Your task to perform on an android device: open device folders in google photos Image 0: 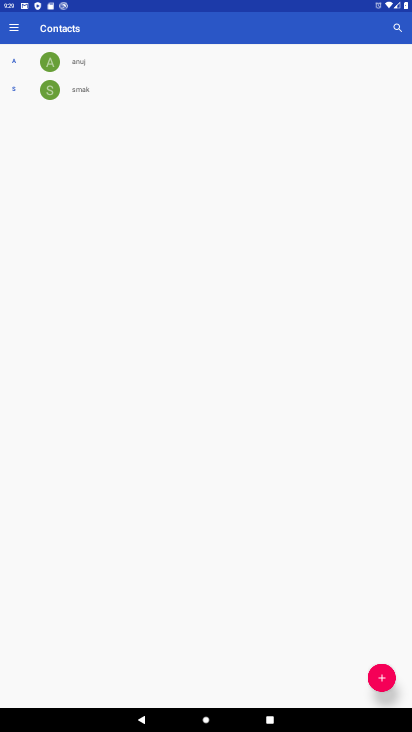
Step 0: press home button
Your task to perform on an android device: open device folders in google photos Image 1: 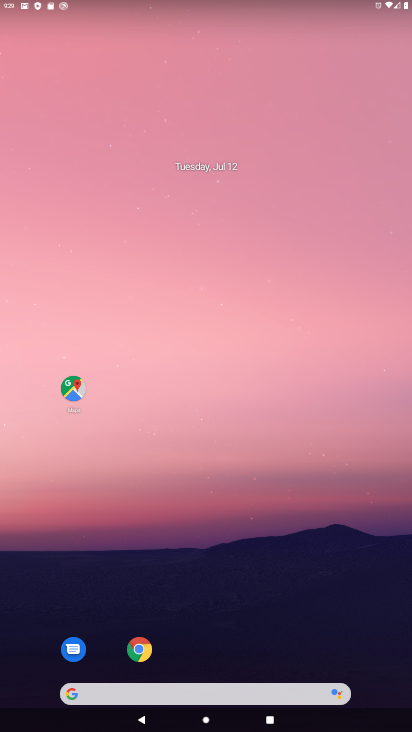
Step 1: drag from (225, 654) to (255, 119)
Your task to perform on an android device: open device folders in google photos Image 2: 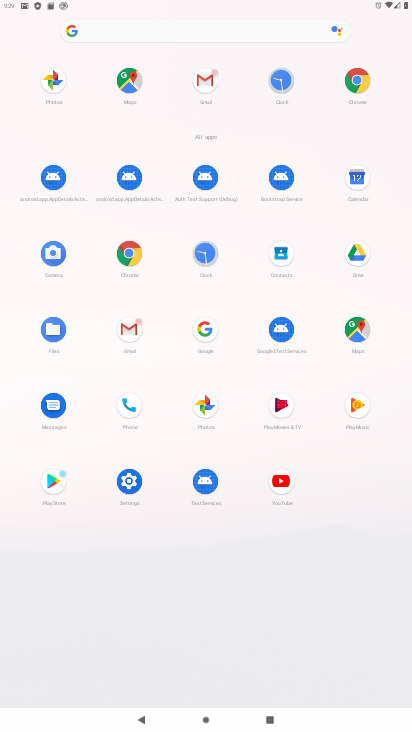
Step 2: click (201, 409)
Your task to perform on an android device: open device folders in google photos Image 3: 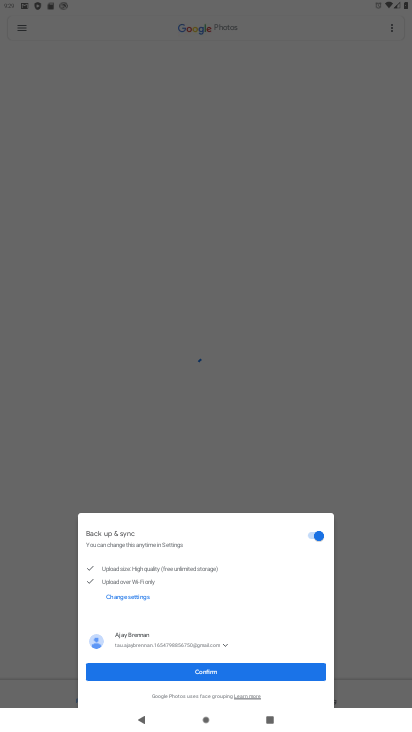
Step 3: click (209, 669)
Your task to perform on an android device: open device folders in google photos Image 4: 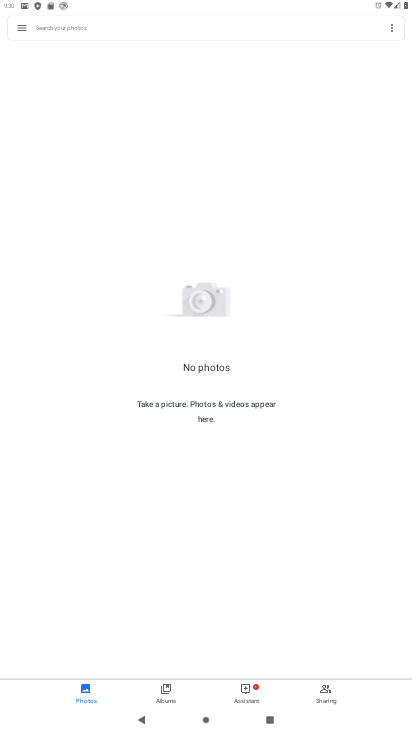
Step 4: click (31, 36)
Your task to perform on an android device: open device folders in google photos Image 5: 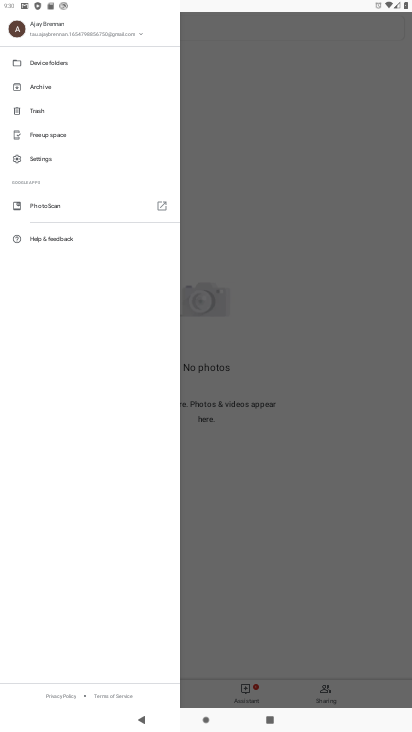
Step 5: click (86, 62)
Your task to perform on an android device: open device folders in google photos Image 6: 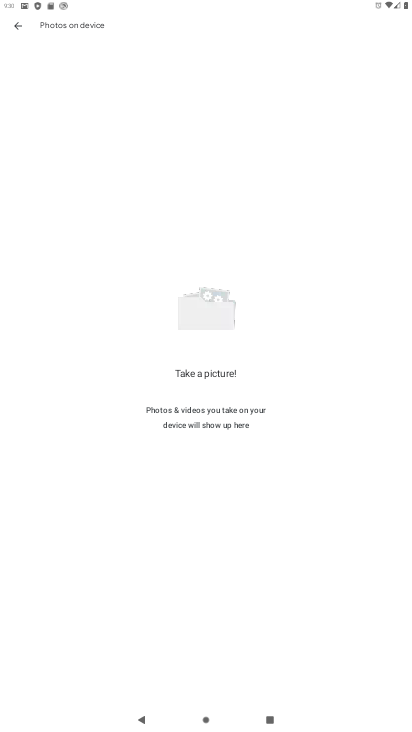
Step 6: task complete